Your task to perform on an android device: toggle data saver in the chrome app Image 0: 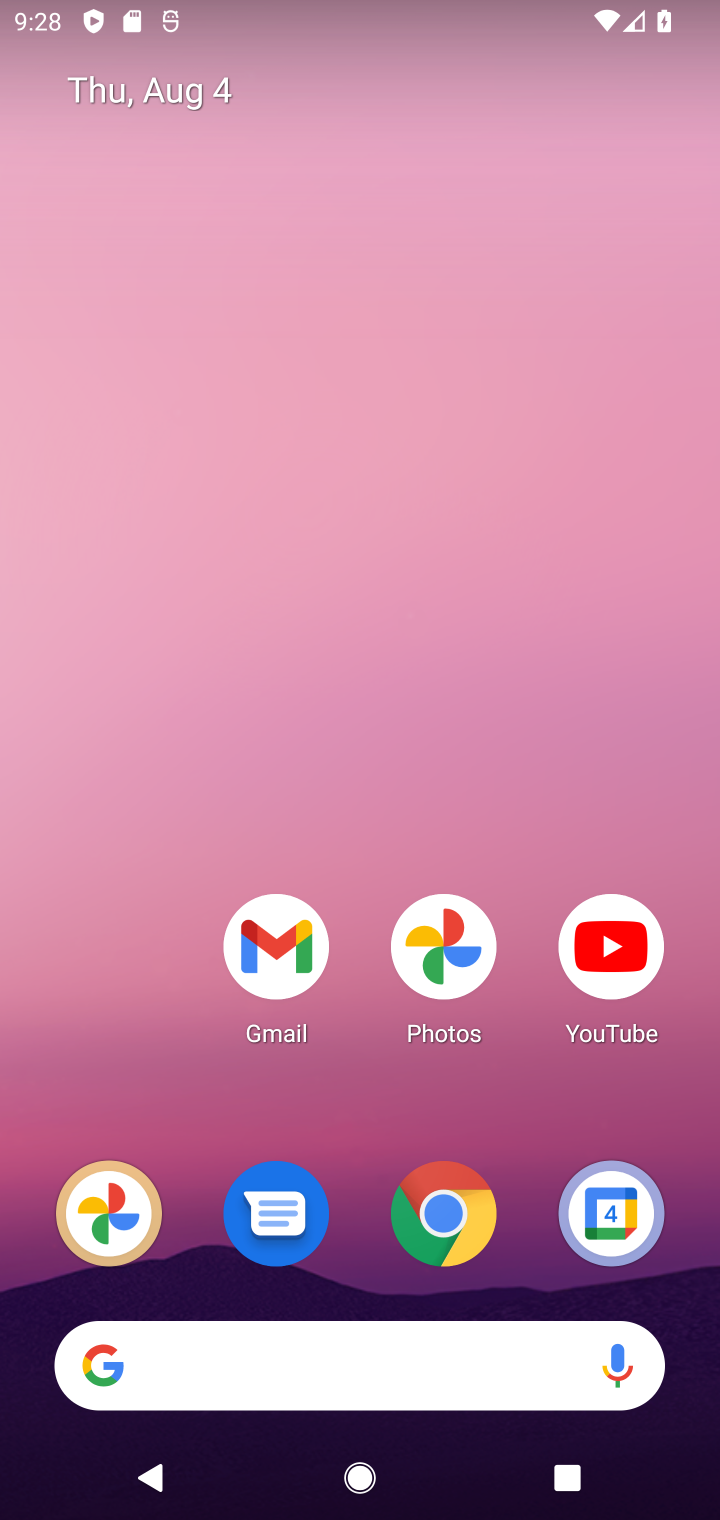
Step 0: press home button
Your task to perform on an android device: toggle data saver in the chrome app Image 1: 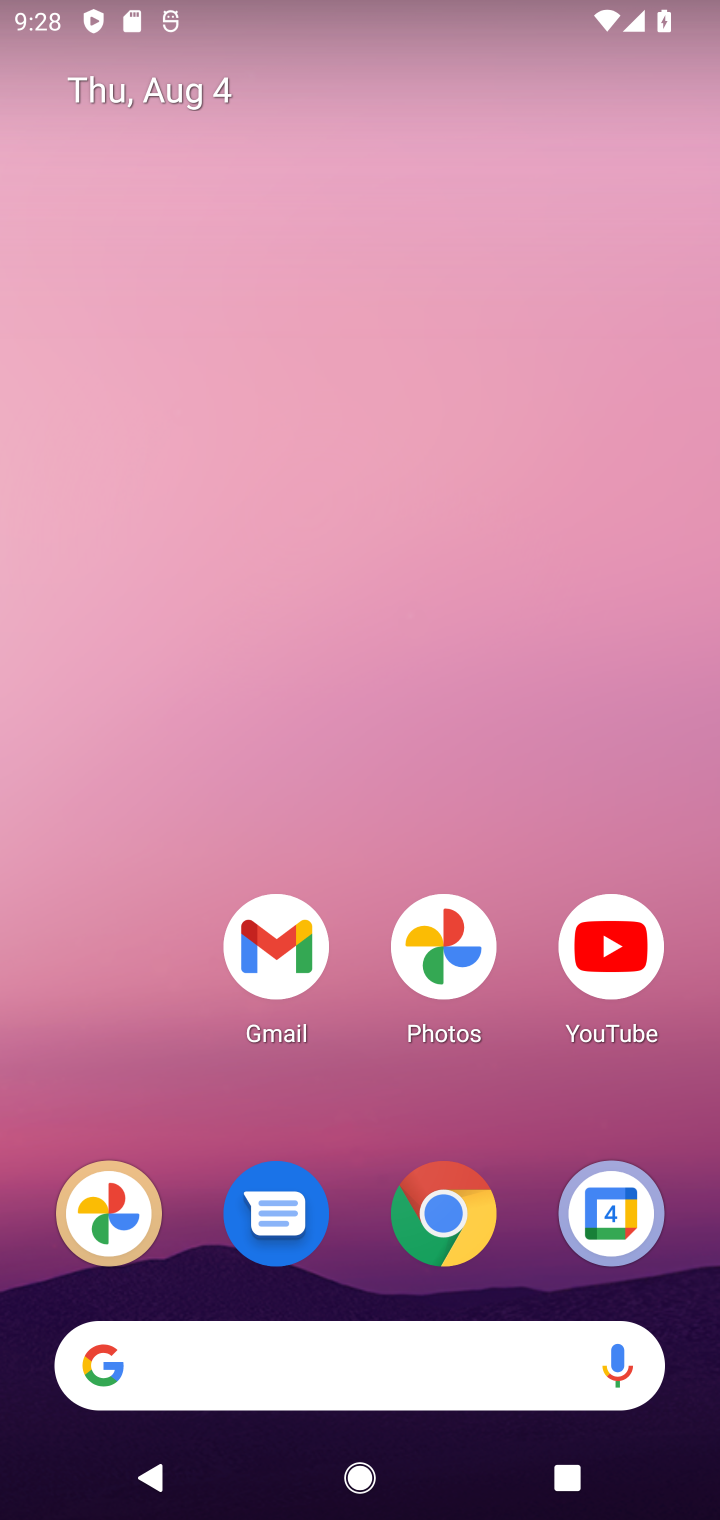
Step 1: click (441, 1200)
Your task to perform on an android device: toggle data saver in the chrome app Image 2: 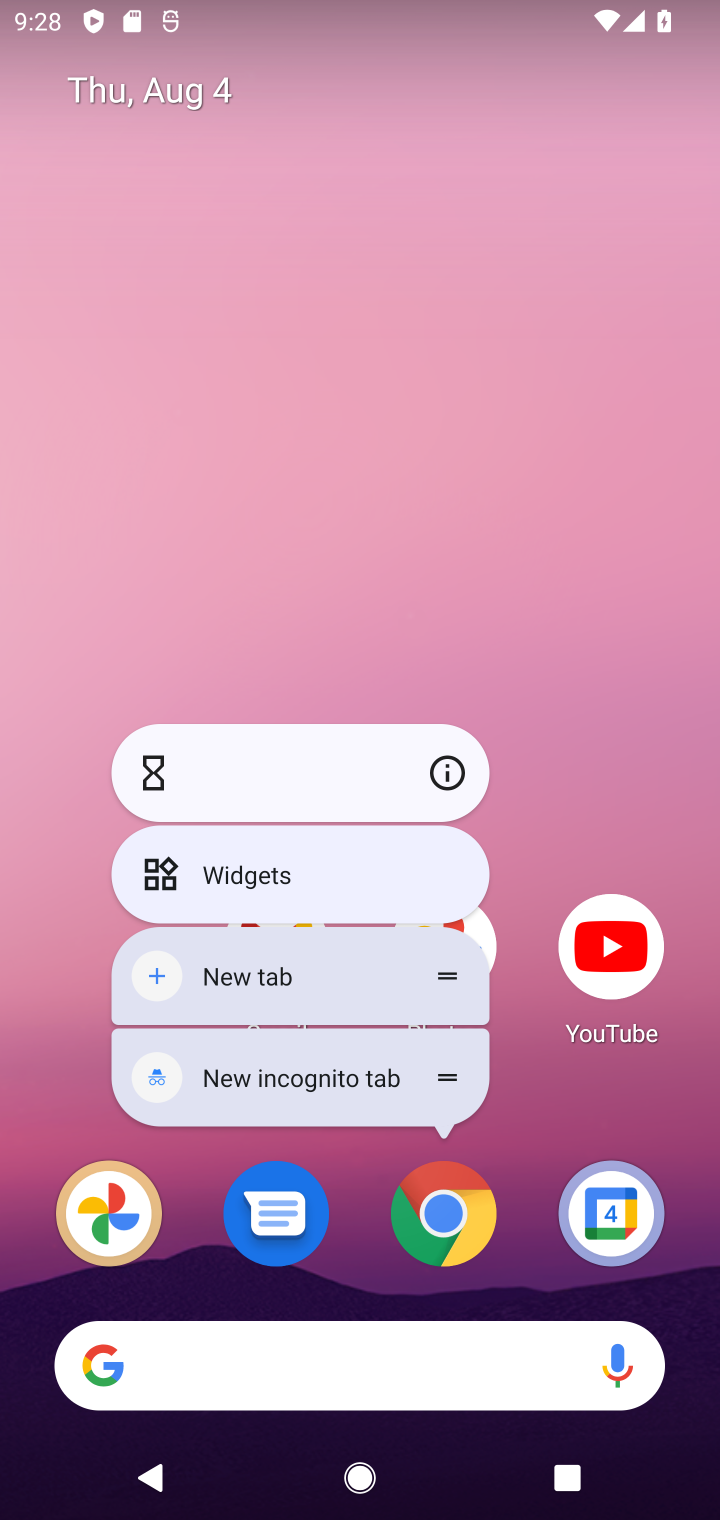
Step 2: drag from (510, 1131) to (532, 186)
Your task to perform on an android device: toggle data saver in the chrome app Image 3: 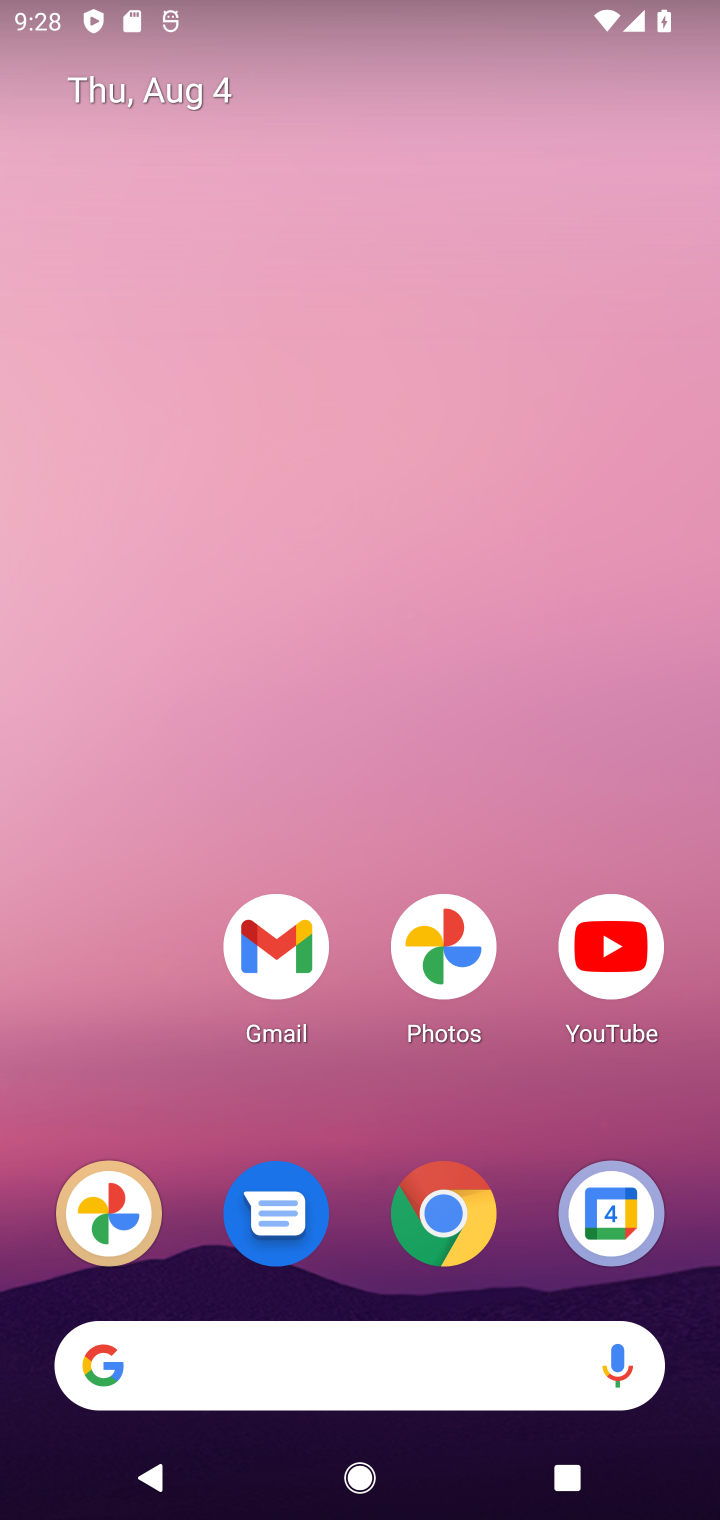
Step 3: drag from (513, 1100) to (489, 165)
Your task to perform on an android device: toggle data saver in the chrome app Image 4: 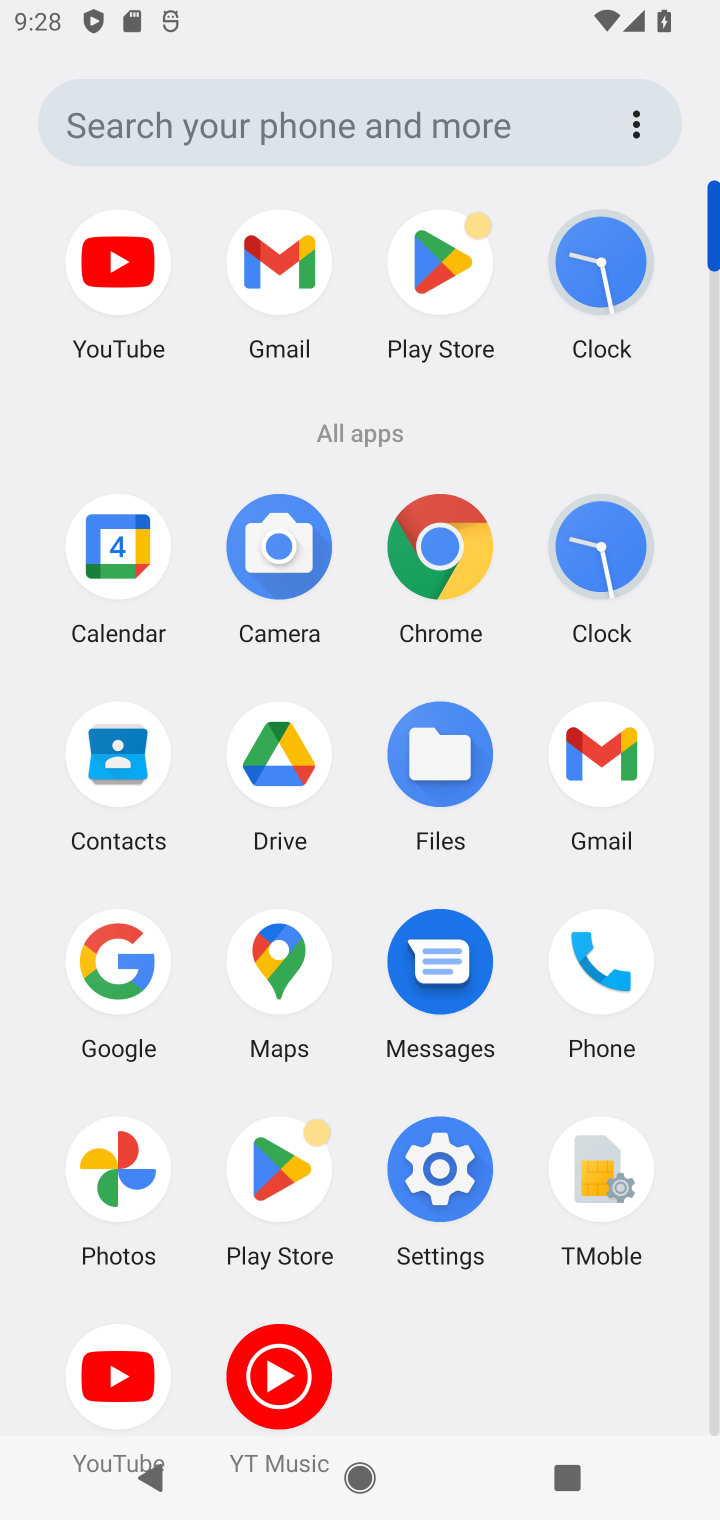
Step 4: click (427, 557)
Your task to perform on an android device: toggle data saver in the chrome app Image 5: 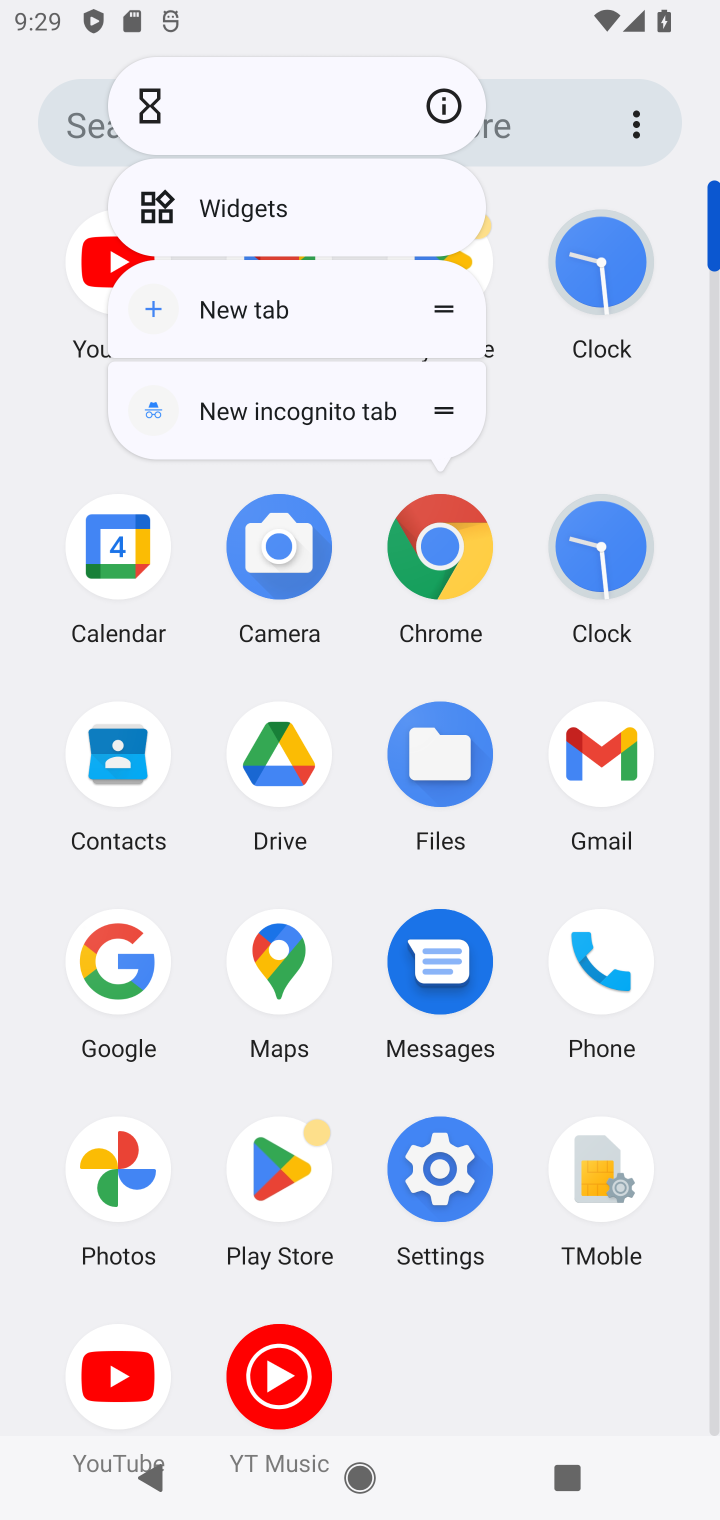
Step 5: click (437, 562)
Your task to perform on an android device: toggle data saver in the chrome app Image 6: 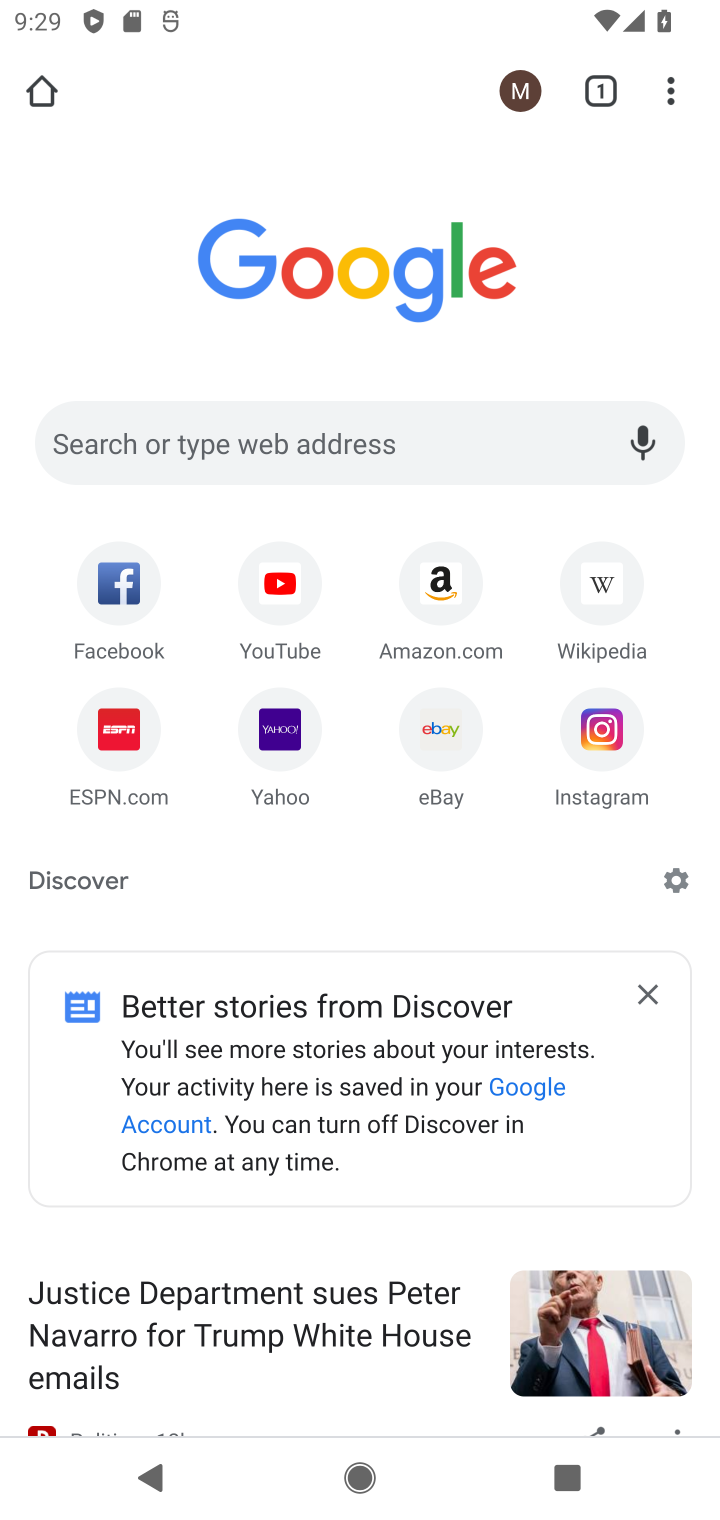
Step 6: click (676, 84)
Your task to perform on an android device: toggle data saver in the chrome app Image 7: 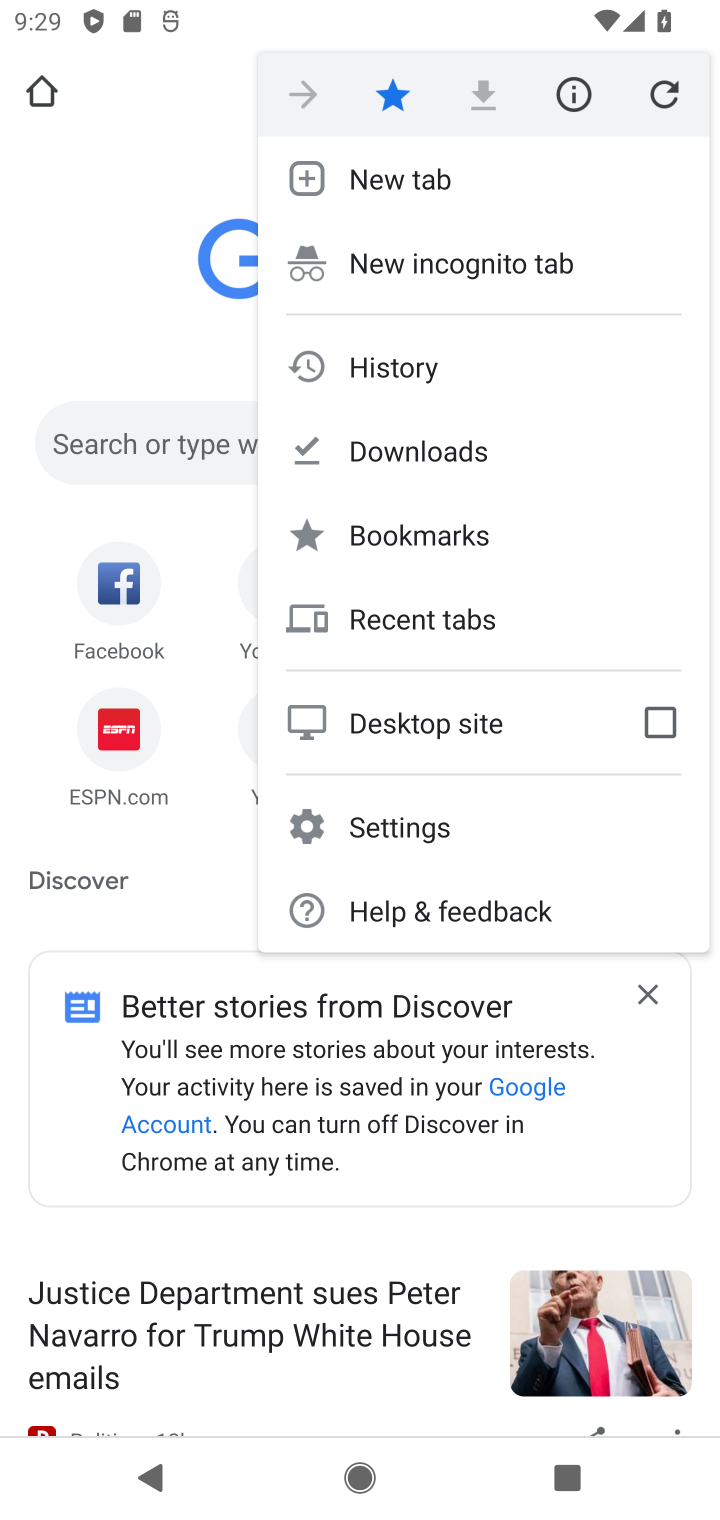
Step 7: click (456, 823)
Your task to perform on an android device: toggle data saver in the chrome app Image 8: 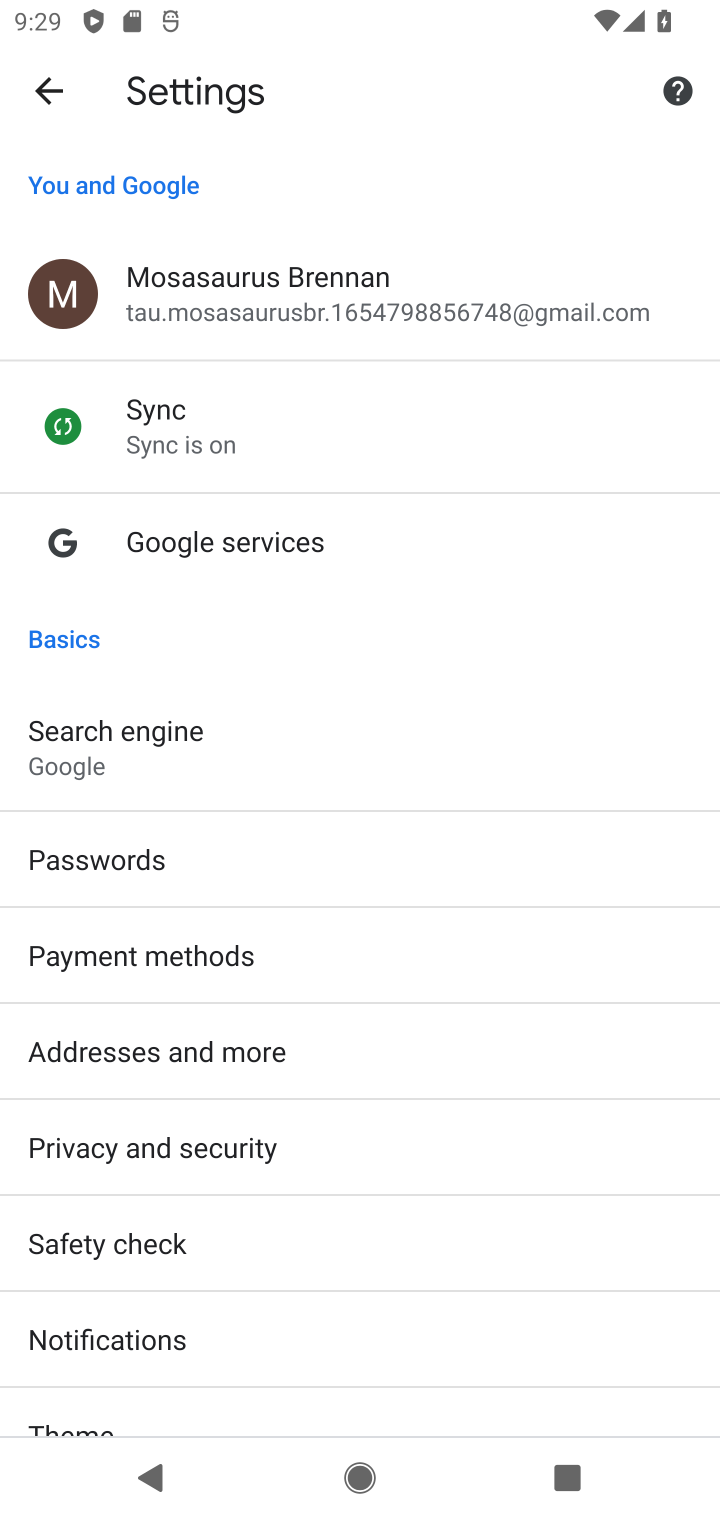
Step 8: drag from (278, 1334) to (264, 549)
Your task to perform on an android device: toggle data saver in the chrome app Image 9: 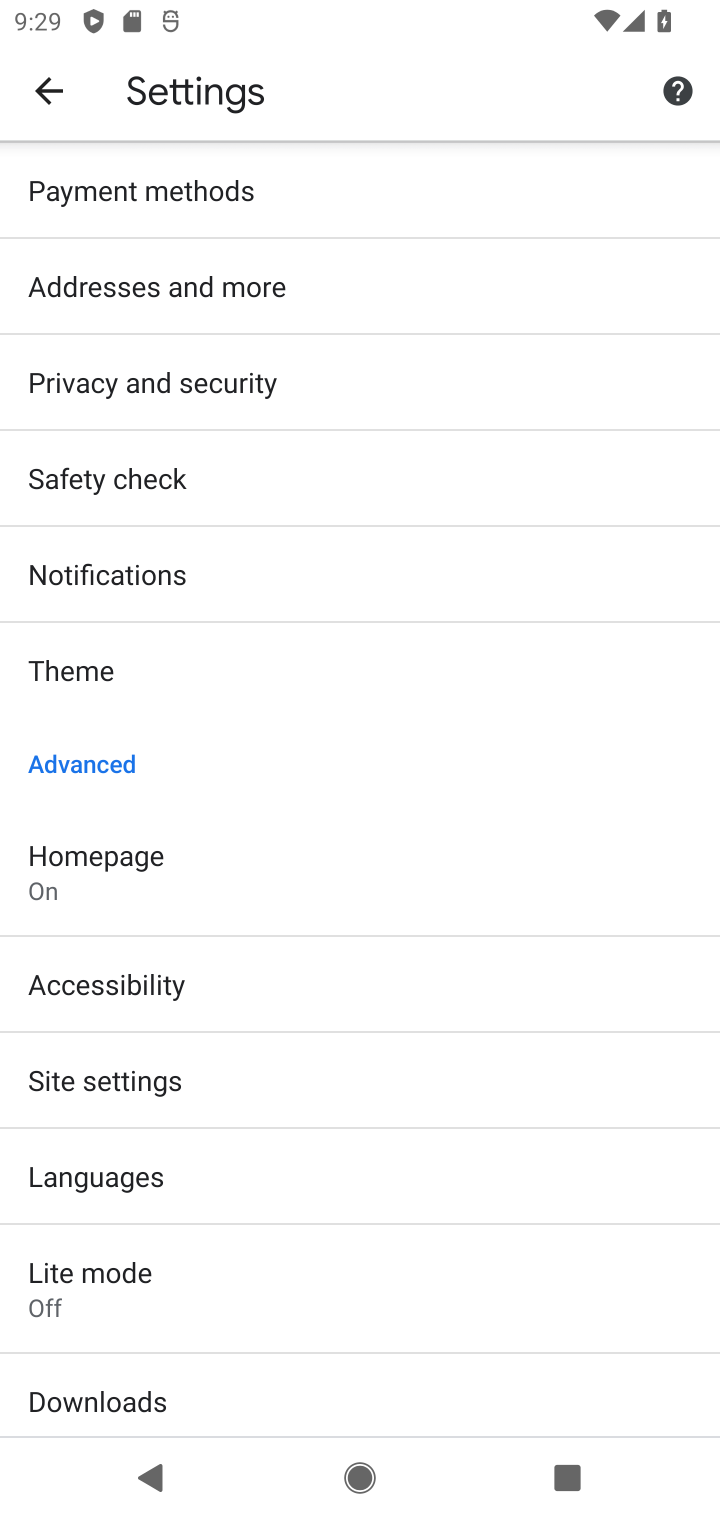
Step 9: click (170, 1292)
Your task to perform on an android device: toggle data saver in the chrome app Image 10: 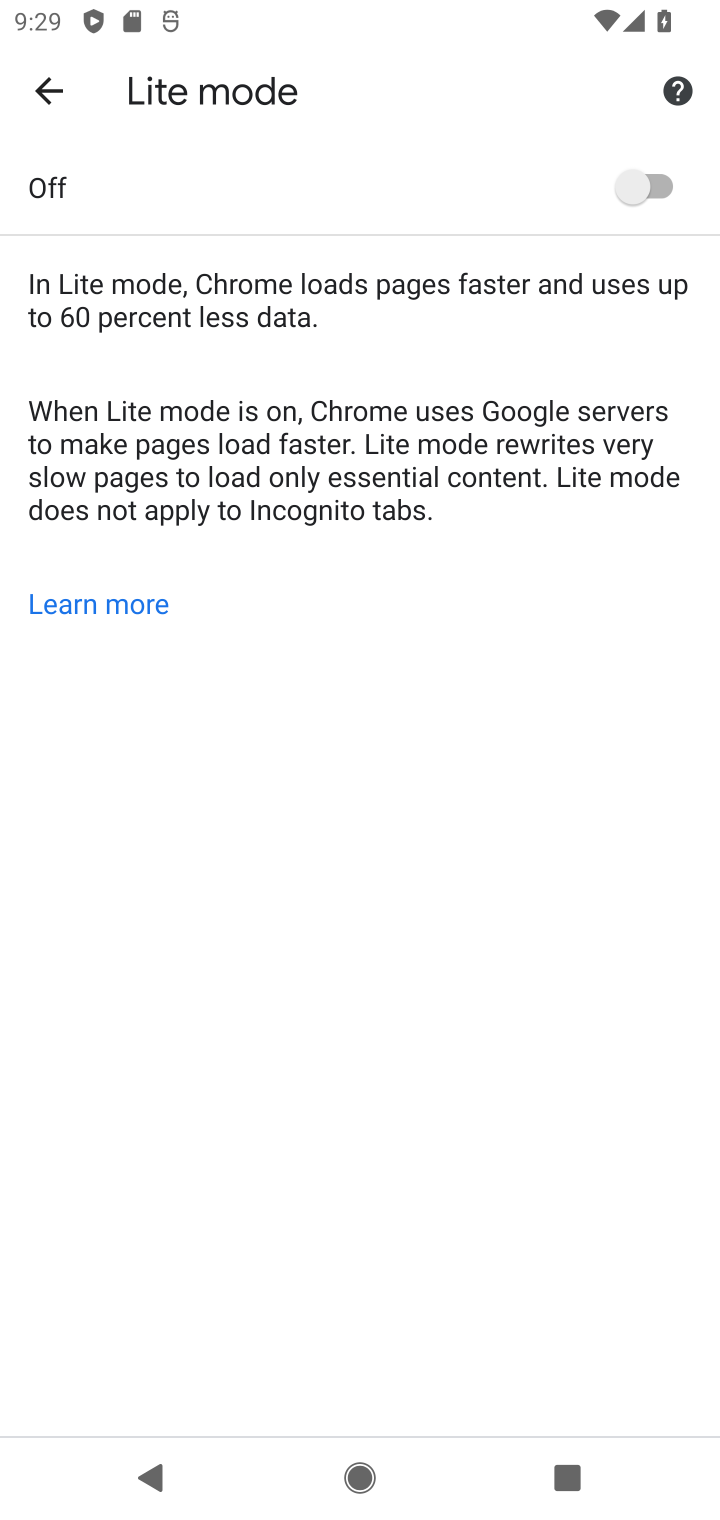
Step 10: click (656, 179)
Your task to perform on an android device: toggle data saver in the chrome app Image 11: 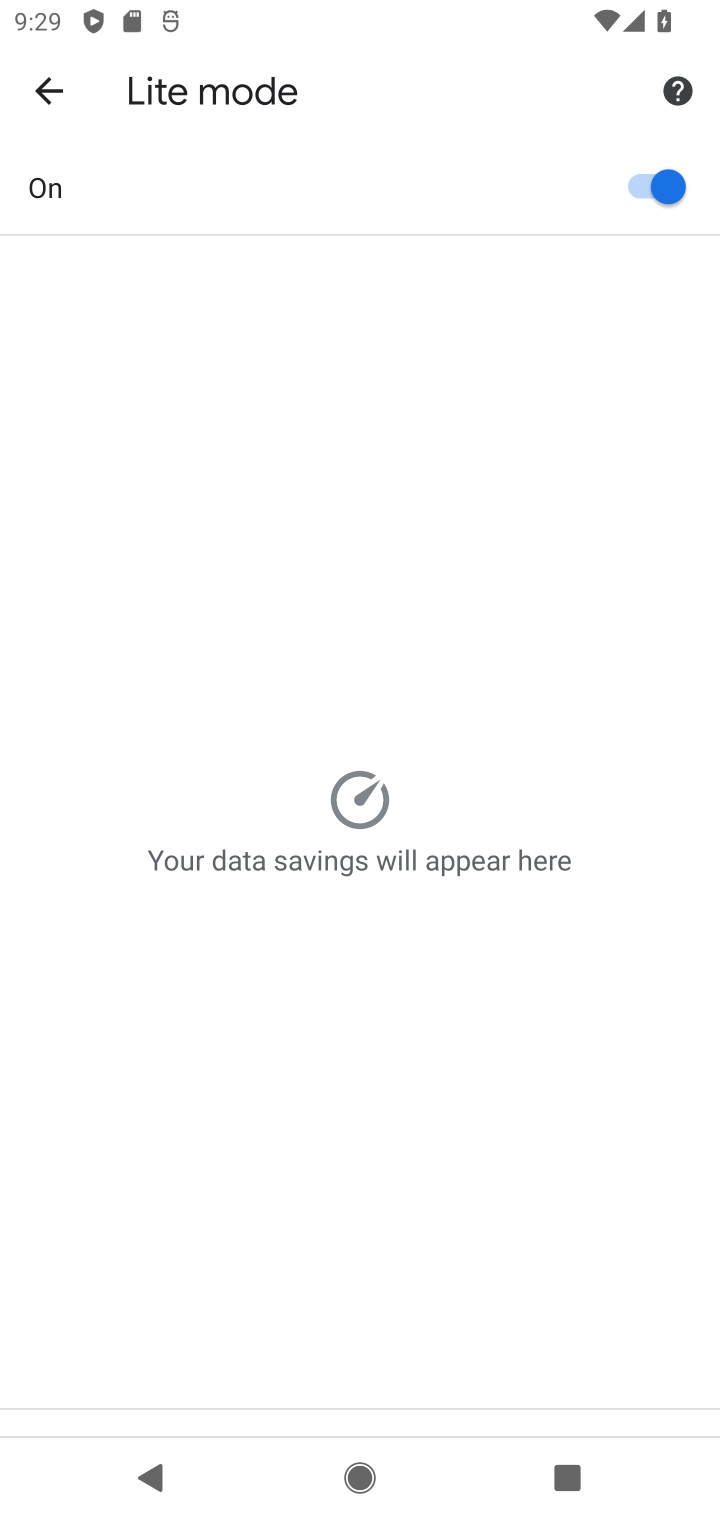
Step 11: task complete